Your task to perform on an android device: Search for hotels in Mexico city Image 0: 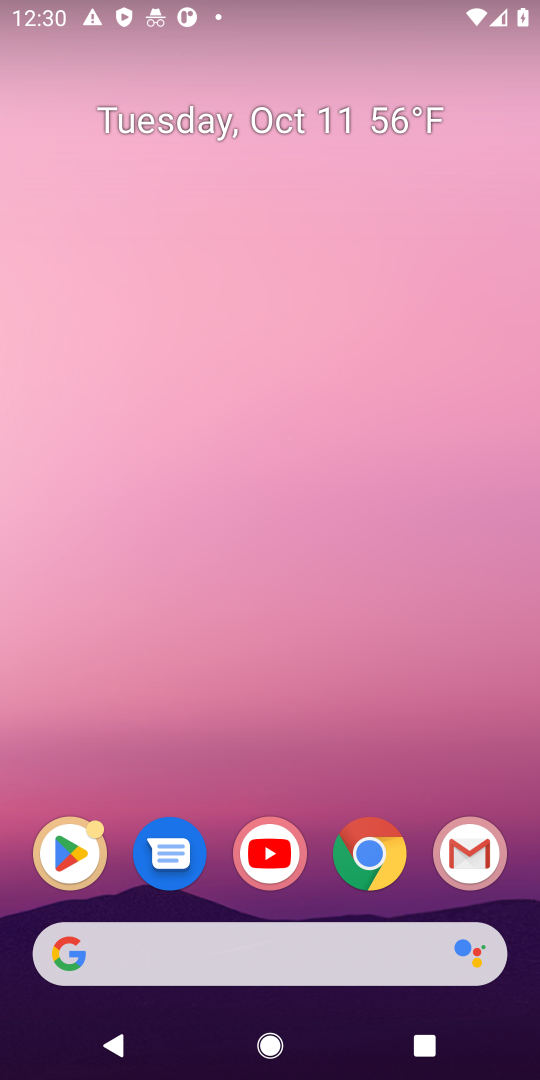
Step 0: drag from (287, 781) to (306, 53)
Your task to perform on an android device: Search for hotels in Mexico city Image 1: 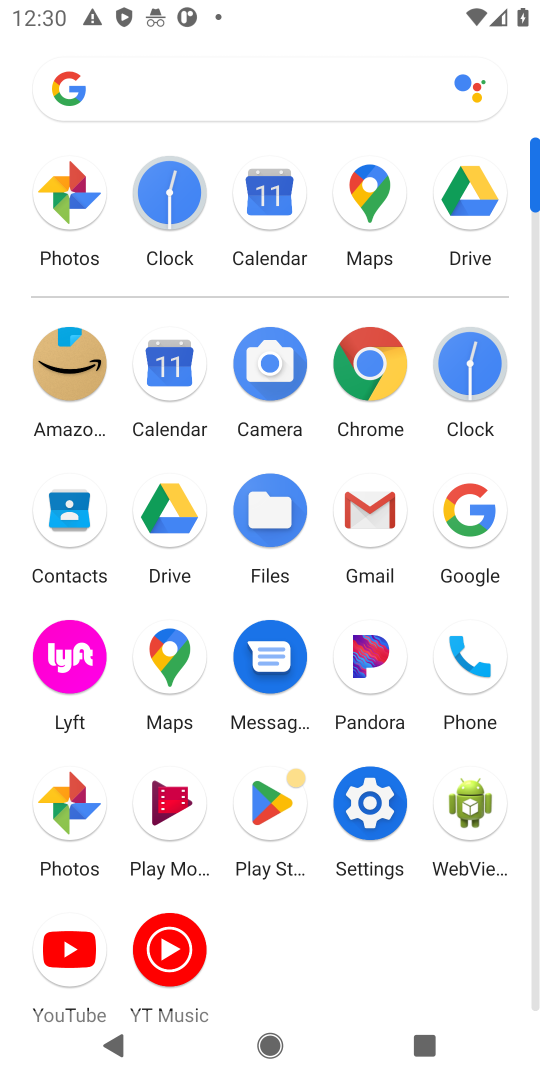
Step 1: click (380, 363)
Your task to perform on an android device: Search for hotels in Mexico city Image 2: 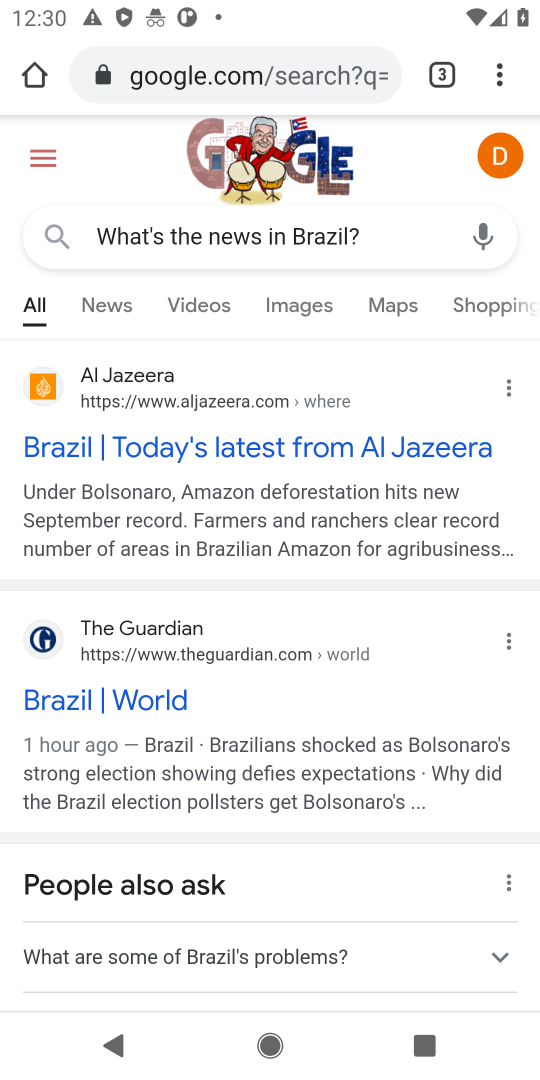
Step 2: click (172, 82)
Your task to perform on an android device: Search for hotels in Mexico city Image 3: 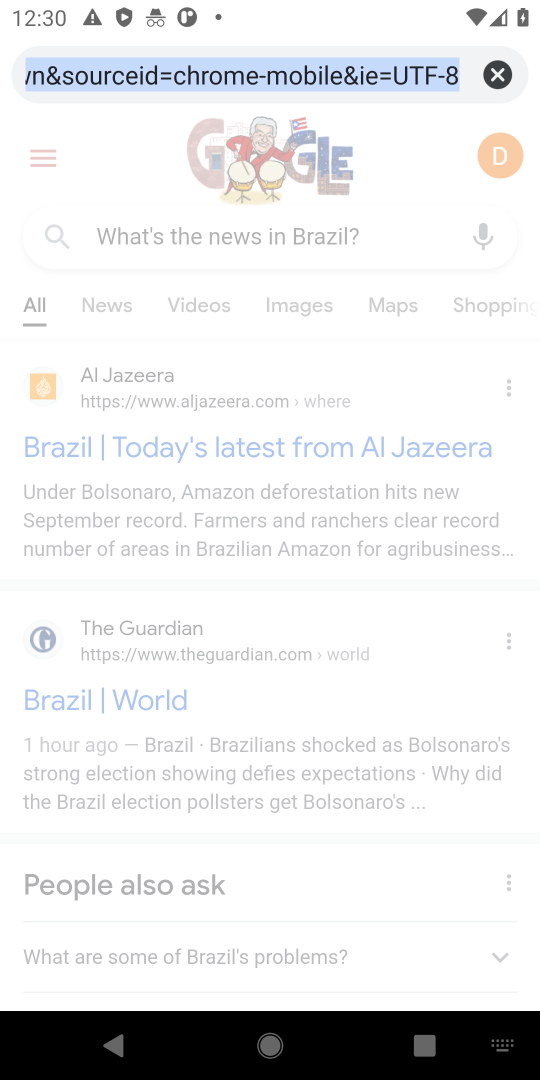
Step 3: click (497, 65)
Your task to perform on an android device: Search for hotels in Mexico city Image 4: 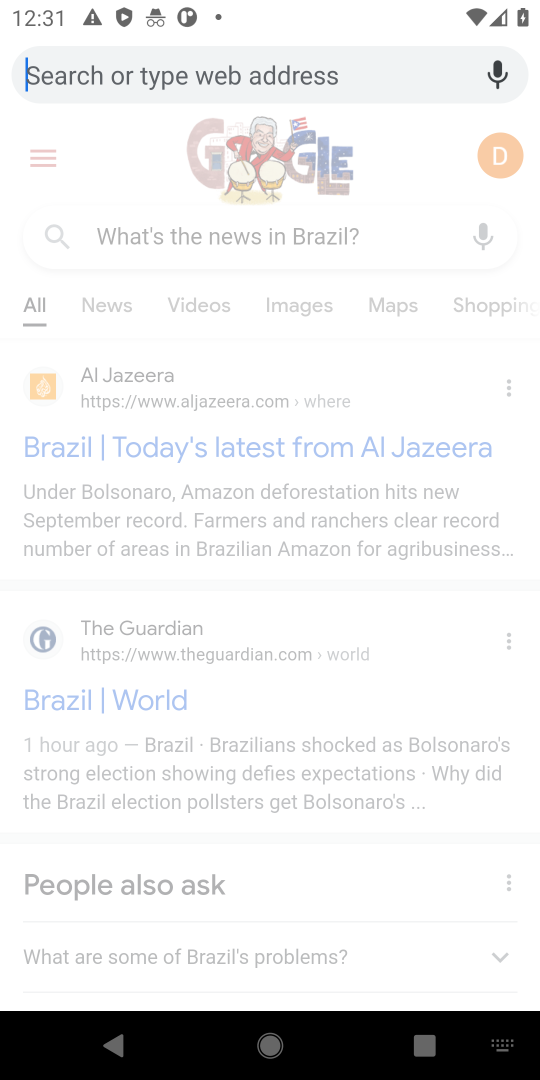
Step 4: type "Search for hotels in Mexico city"
Your task to perform on an android device: Search for hotels in Mexico city Image 5: 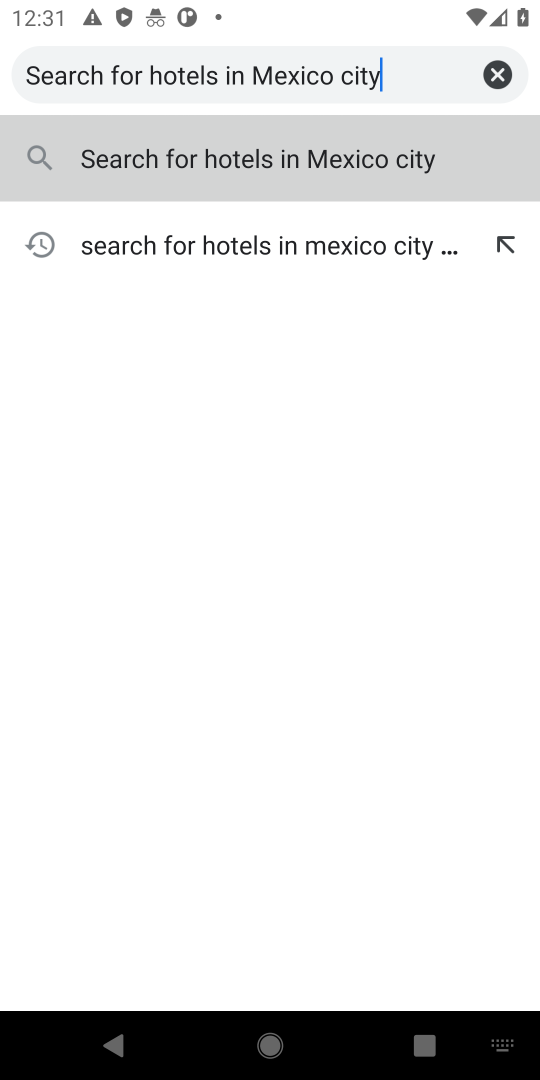
Step 5: click (114, 159)
Your task to perform on an android device: Search for hotels in Mexico city Image 6: 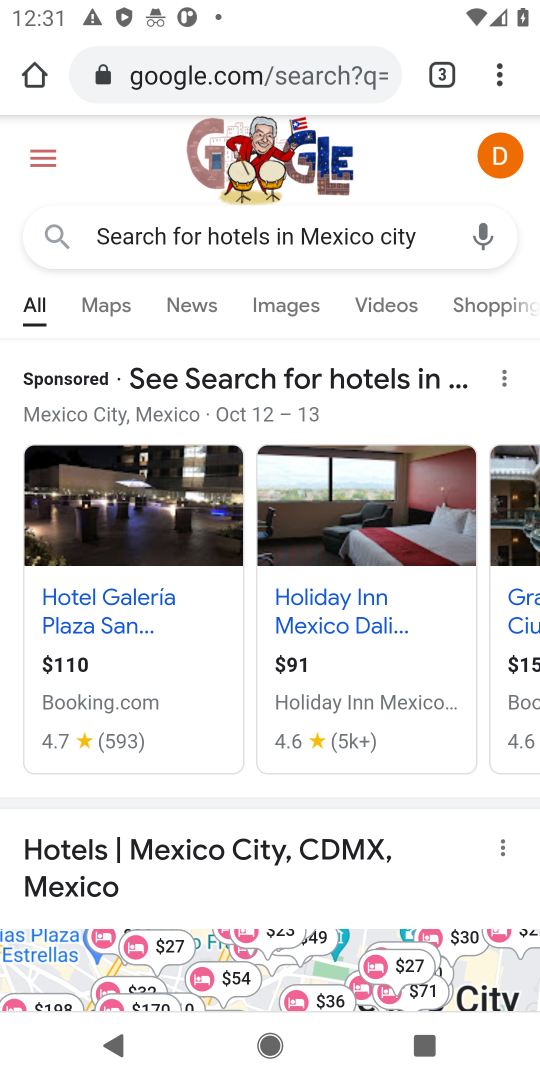
Step 6: task complete